Your task to perform on an android device: Go to Google maps Image 0: 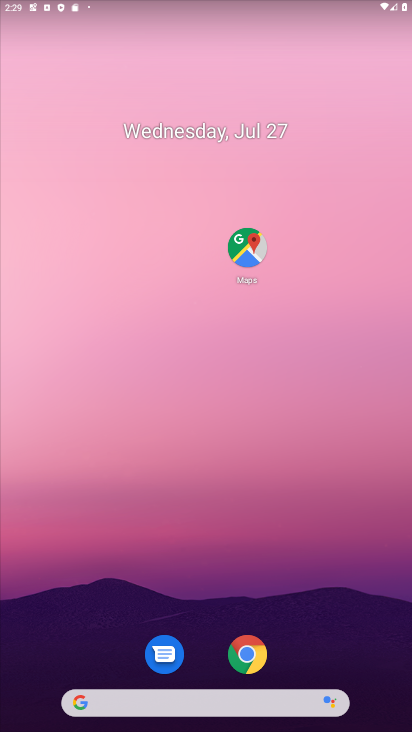
Step 0: click (238, 255)
Your task to perform on an android device: Go to Google maps Image 1: 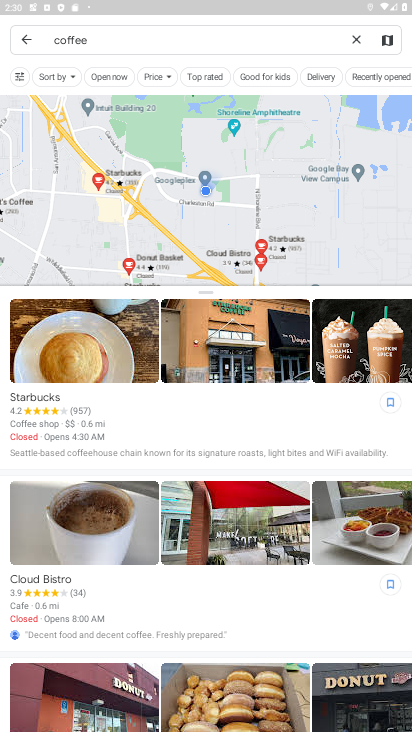
Step 1: click (359, 39)
Your task to perform on an android device: Go to Google maps Image 2: 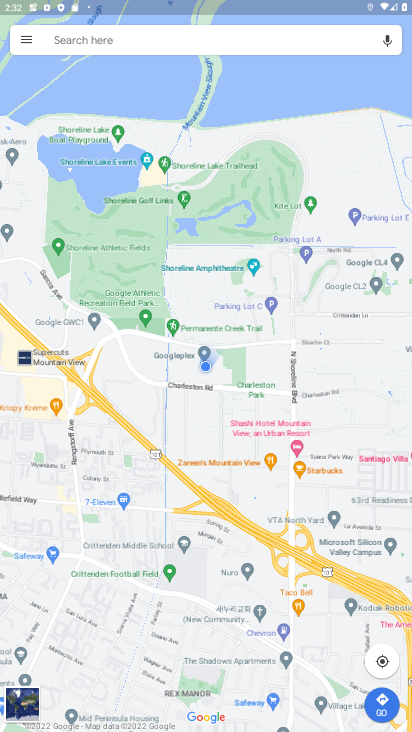
Step 2: task complete